Your task to perform on an android device: Go to ESPN.com Image 0: 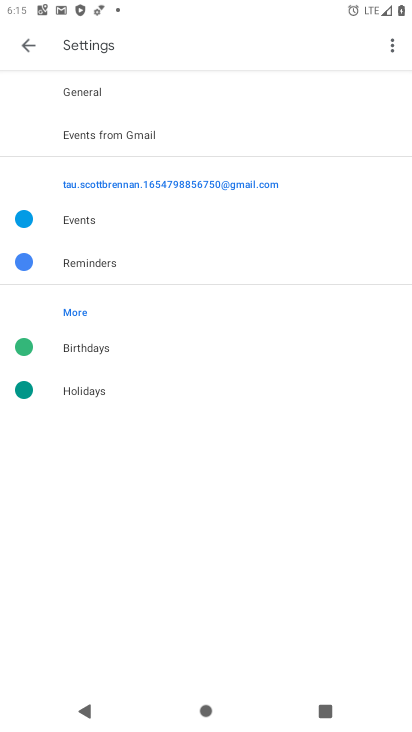
Step 0: press home button
Your task to perform on an android device: Go to ESPN.com Image 1: 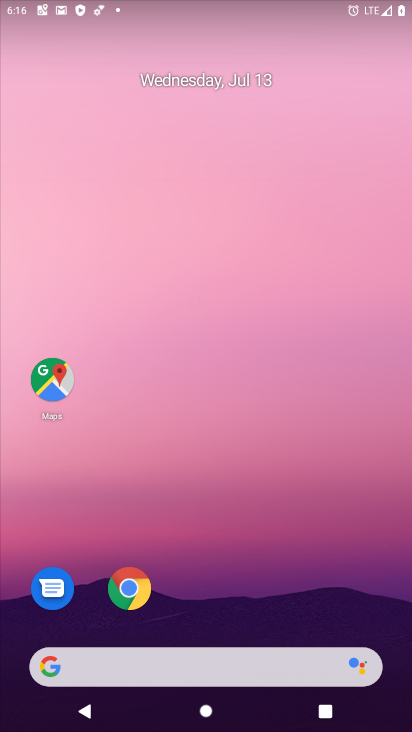
Step 1: click (134, 582)
Your task to perform on an android device: Go to ESPN.com Image 2: 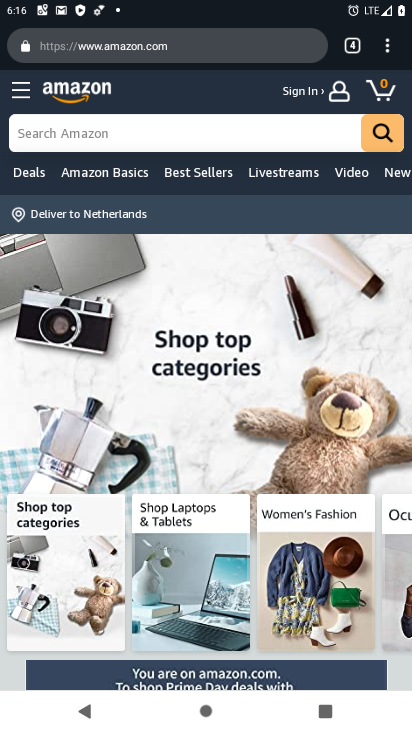
Step 2: press back button
Your task to perform on an android device: Go to ESPN.com Image 3: 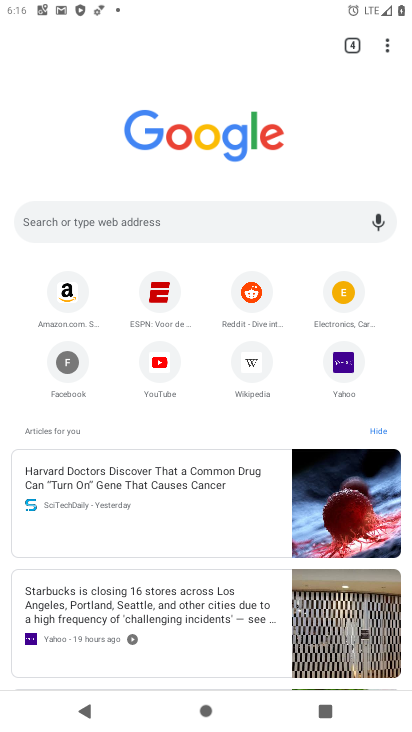
Step 3: click (166, 308)
Your task to perform on an android device: Go to ESPN.com Image 4: 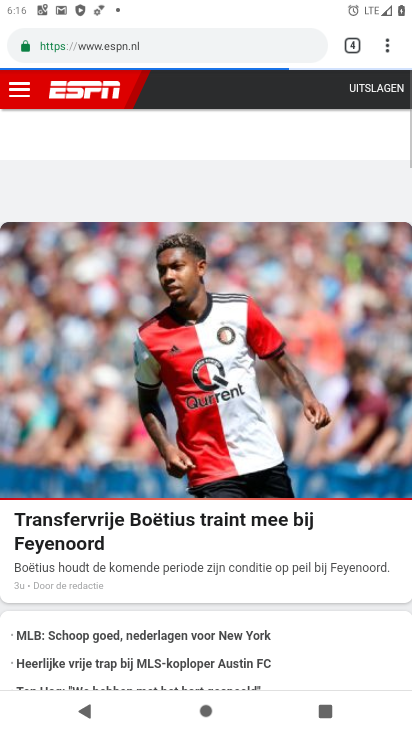
Step 4: task complete